Your task to perform on an android device: Go to battery settings Image 0: 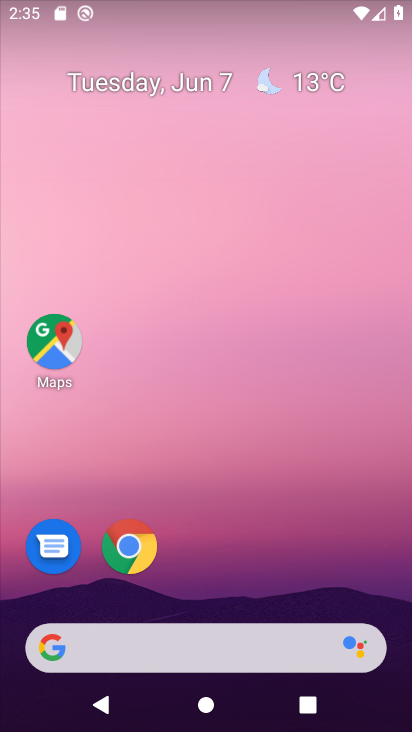
Step 0: drag from (323, 424) to (327, 285)
Your task to perform on an android device: Go to battery settings Image 1: 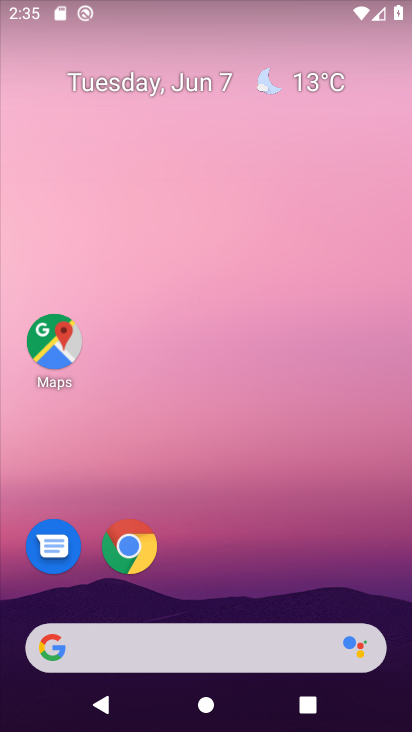
Step 1: drag from (294, 531) to (309, 118)
Your task to perform on an android device: Go to battery settings Image 2: 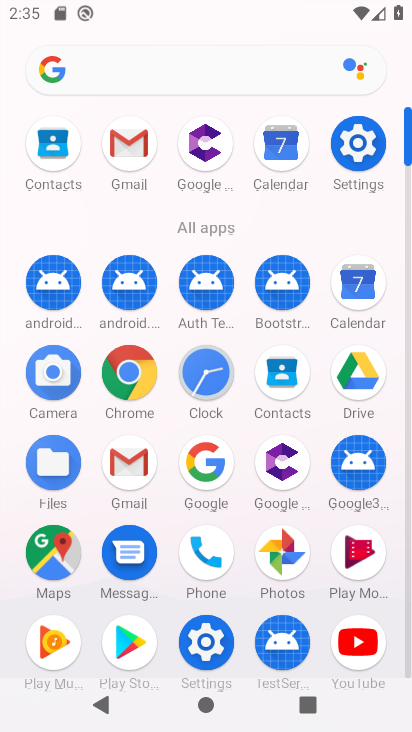
Step 2: click (369, 155)
Your task to perform on an android device: Go to battery settings Image 3: 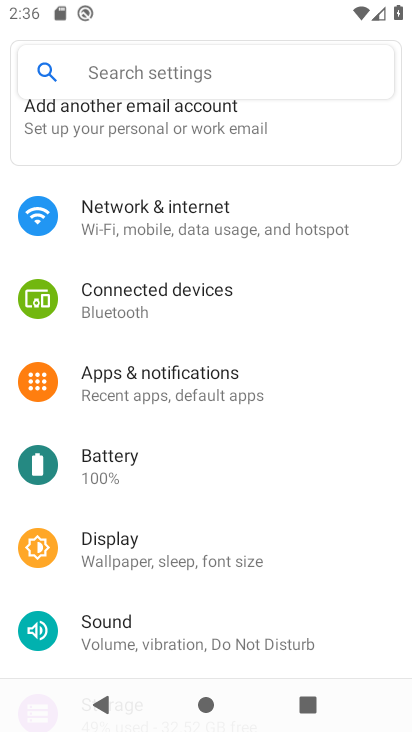
Step 3: drag from (349, 441) to (337, 243)
Your task to perform on an android device: Go to battery settings Image 4: 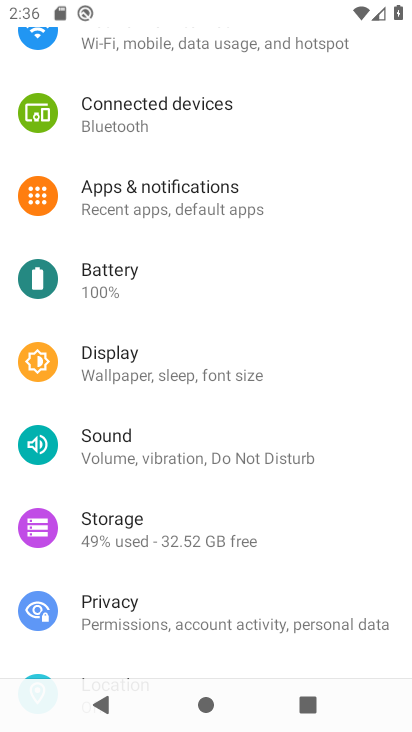
Step 4: drag from (332, 524) to (339, 293)
Your task to perform on an android device: Go to battery settings Image 5: 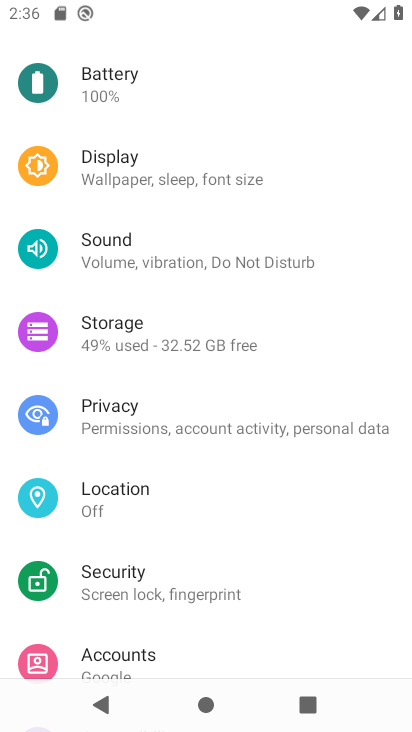
Step 5: drag from (324, 513) to (333, 462)
Your task to perform on an android device: Go to battery settings Image 6: 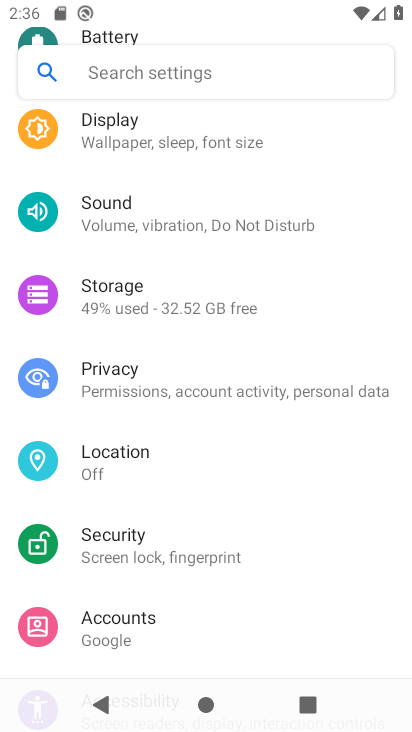
Step 6: drag from (310, 573) to (312, 385)
Your task to perform on an android device: Go to battery settings Image 7: 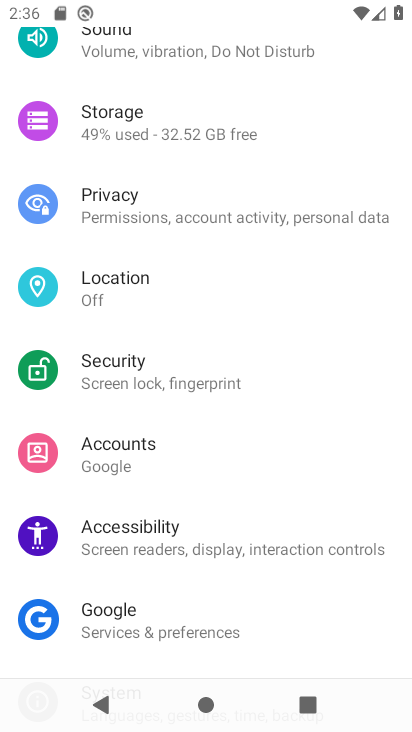
Step 7: drag from (306, 541) to (314, 304)
Your task to perform on an android device: Go to battery settings Image 8: 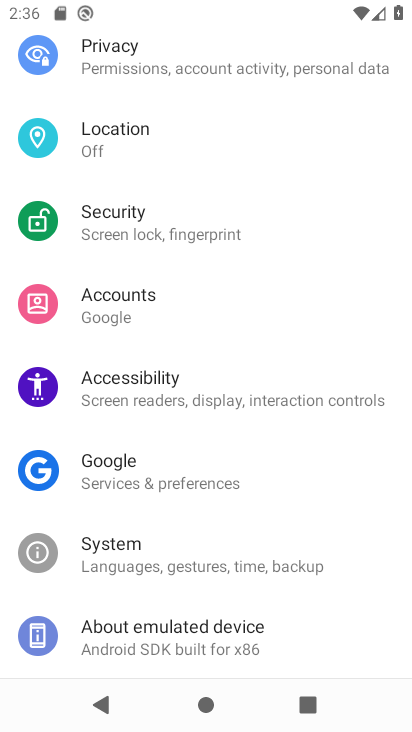
Step 8: drag from (299, 534) to (313, 367)
Your task to perform on an android device: Go to battery settings Image 9: 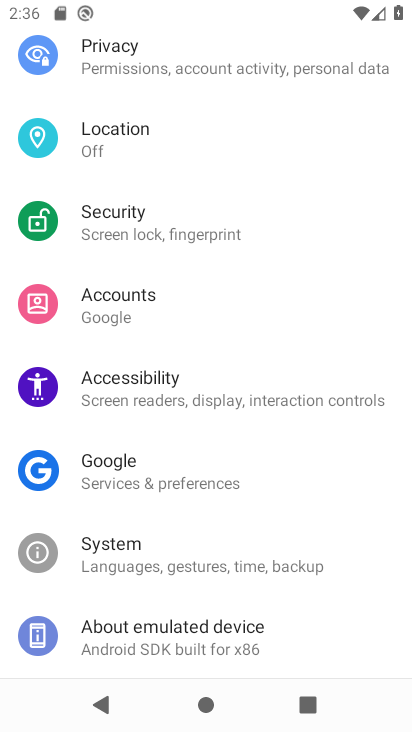
Step 9: drag from (307, 498) to (317, 282)
Your task to perform on an android device: Go to battery settings Image 10: 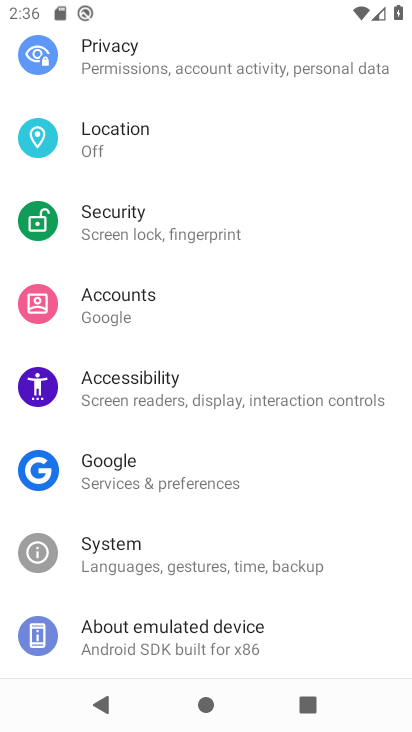
Step 10: drag from (314, 493) to (314, 312)
Your task to perform on an android device: Go to battery settings Image 11: 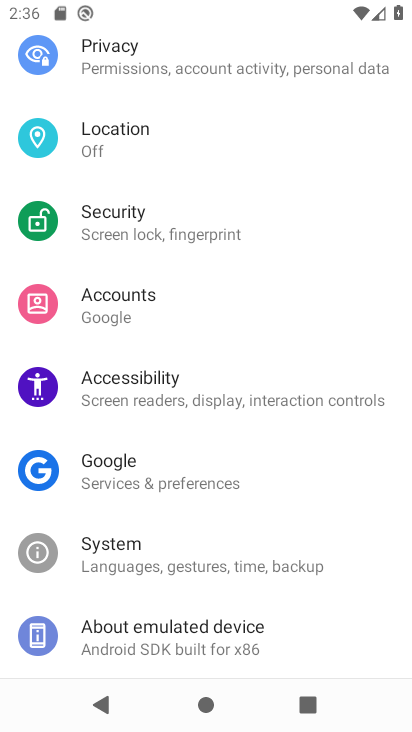
Step 11: drag from (297, 528) to (297, 346)
Your task to perform on an android device: Go to battery settings Image 12: 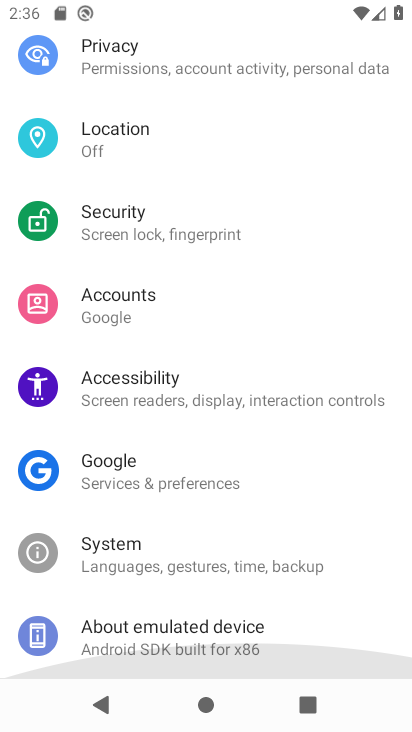
Step 12: drag from (296, 307) to (332, 444)
Your task to perform on an android device: Go to battery settings Image 13: 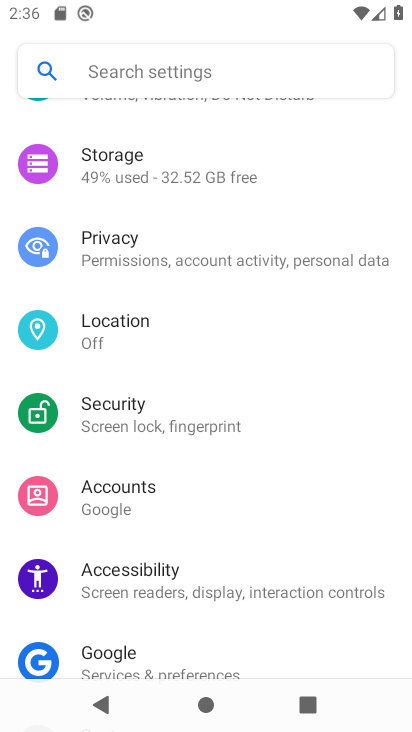
Step 13: drag from (307, 209) to (354, 449)
Your task to perform on an android device: Go to battery settings Image 14: 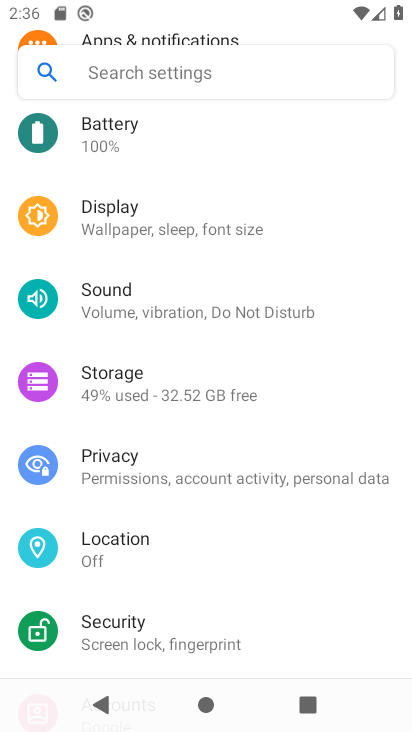
Step 14: drag from (315, 197) to (358, 421)
Your task to perform on an android device: Go to battery settings Image 15: 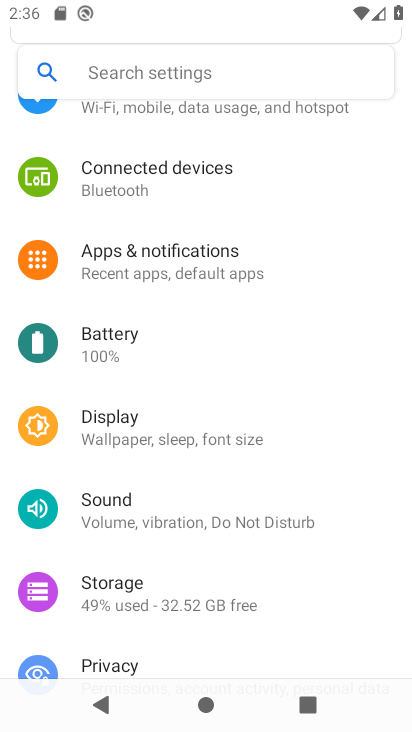
Step 15: drag from (321, 193) to (355, 367)
Your task to perform on an android device: Go to battery settings Image 16: 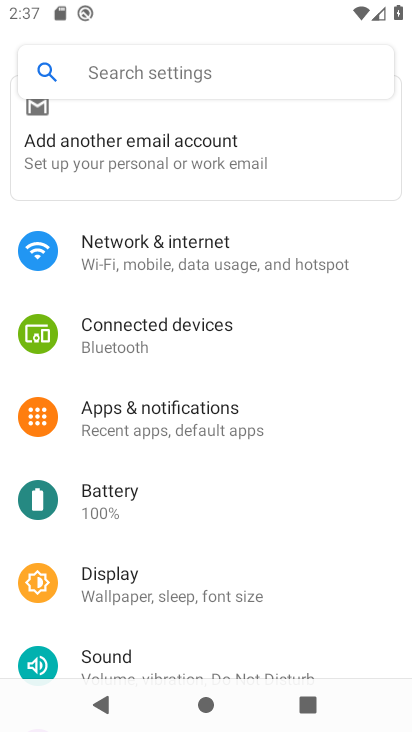
Step 16: drag from (328, 428) to (324, 158)
Your task to perform on an android device: Go to battery settings Image 17: 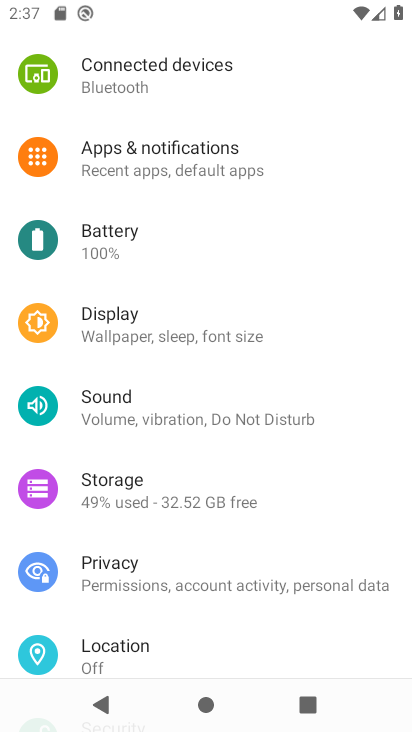
Step 17: drag from (318, 440) to (332, 265)
Your task to perform on an android device: Go to battery settings Image 18: 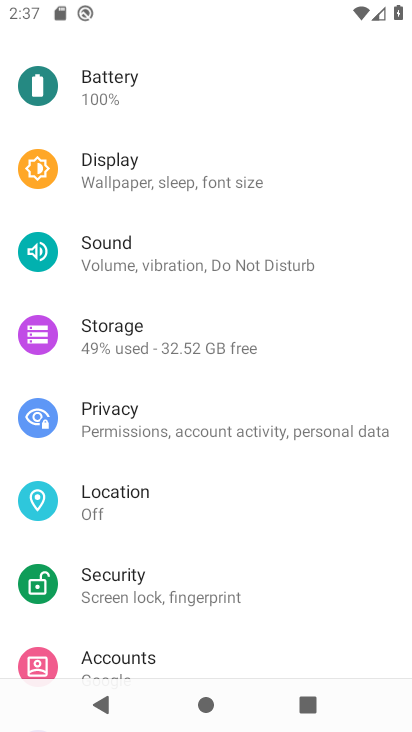
Step 18: drag from (307, 229) to (338, 410)
Your task to perform on an android device: Go to battery settings Image 19: 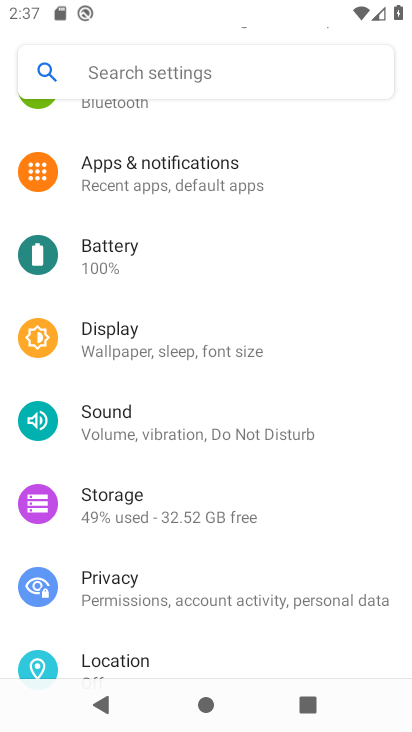
Step 19: drag from (316, 178) to (343, 363)
Your task to perform on an android device: Go to battery settings Image 20: 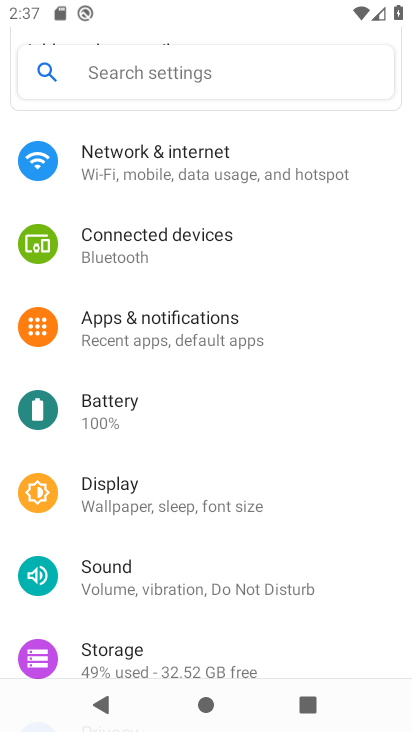
Step 20: click (169, 423)
Your task to perform on an android device: Go to battery settings Image 21: 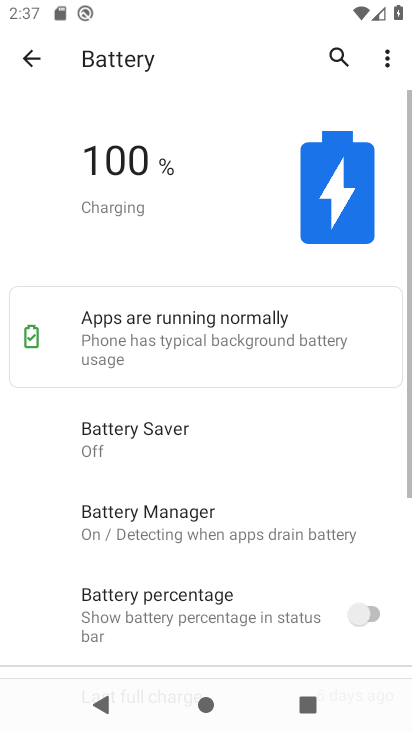
Step 21: task complete